Your task to perform on an android device: open wifi settings Image 0: 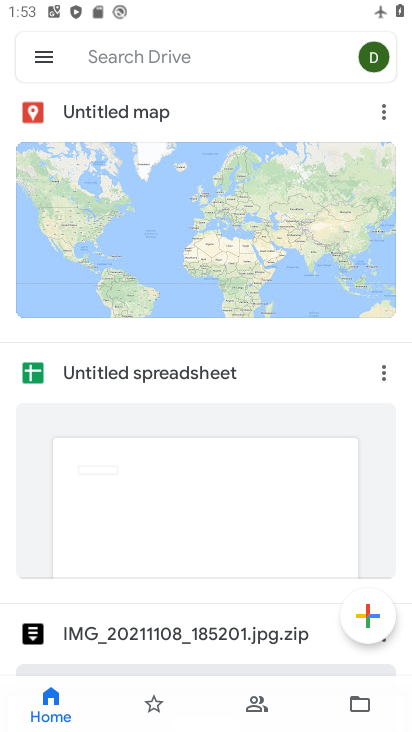
Step 0: press home button
Your task to perform on an android device: open wifi settings Image 1: 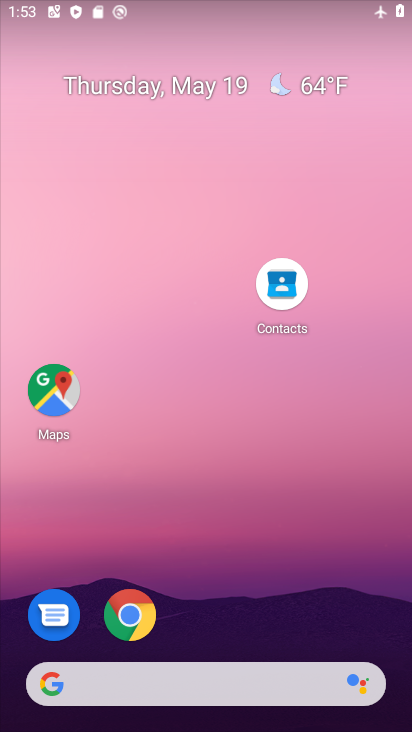
Step 1: drag from (234, 570) to (248, 98)
Your task to perform on an android device: open wifi settings Image 2: 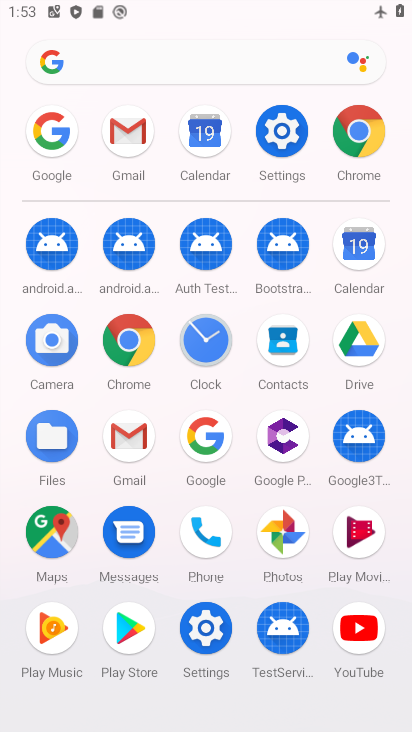
Step 2: click (307, 100)
Your task to perform on an android device: open wifi settings Image 3: 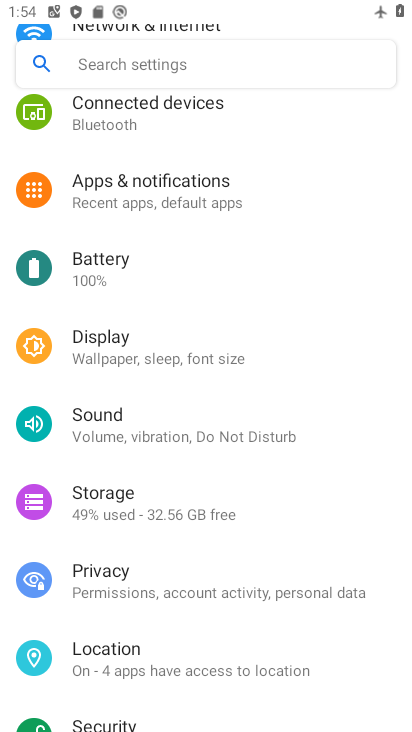
Step 3: drag from (218, 278) to (226, 681)
Your task to perform on an android device: open wifi settings Image 4: 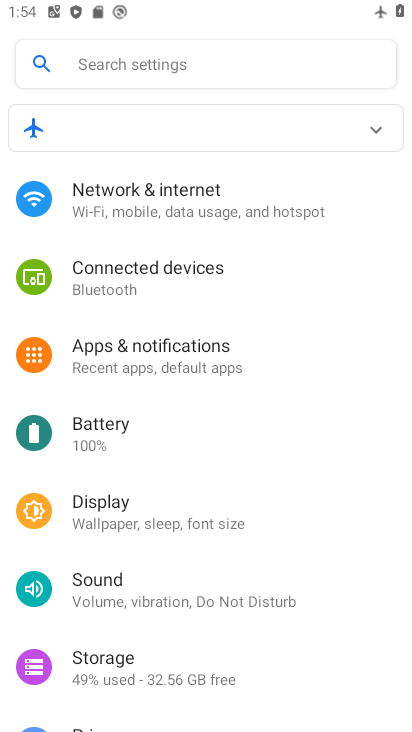
Step 4: click (299, 220)
Your task to perform on an android device: open wifi settings Image 5: 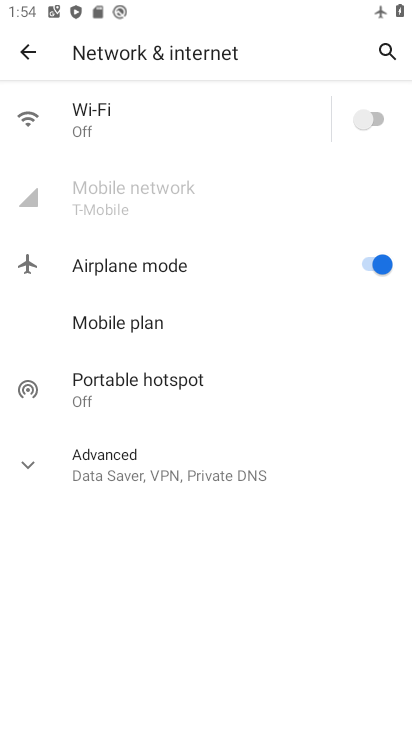
Step 5: click (224, 119)
Your task to perform on an android device: open wifi settings Image 6: 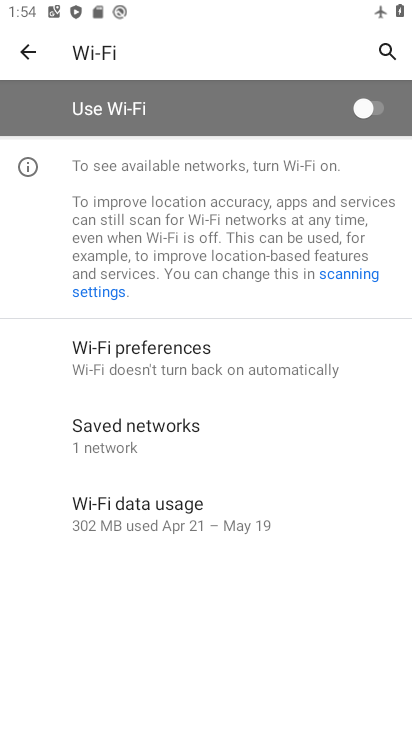
Step 6: task complete